Your task to perform on an android device: Open display settings Image 0: 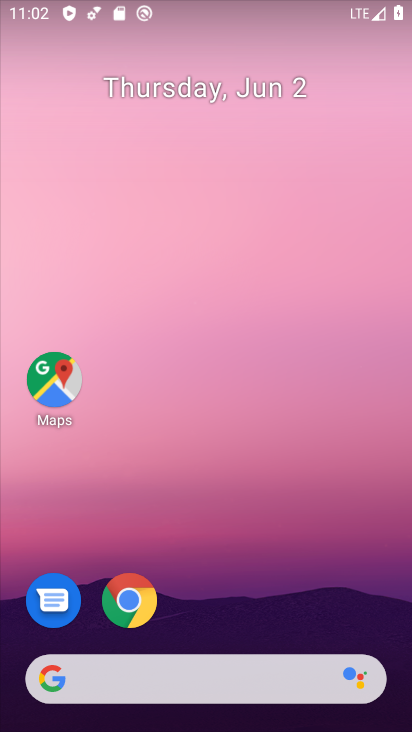
Step 0: drag from (213, 633) to (247, 279)
Your task to perform on an android device: Open display settings Image 1: 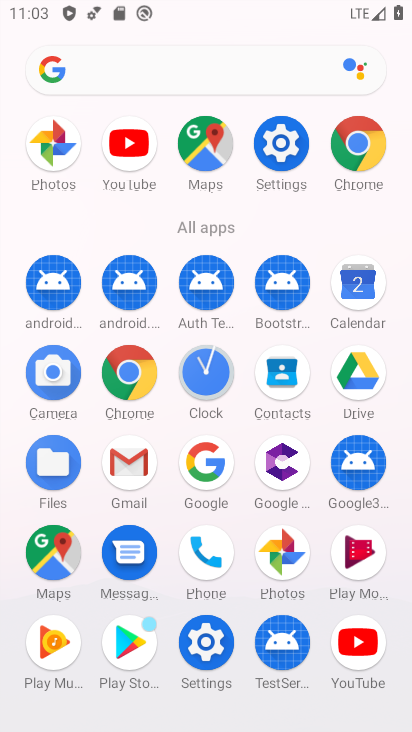
Step 1: click (273, 165)
Your task to perform on an android device: Open display settings Image 2: 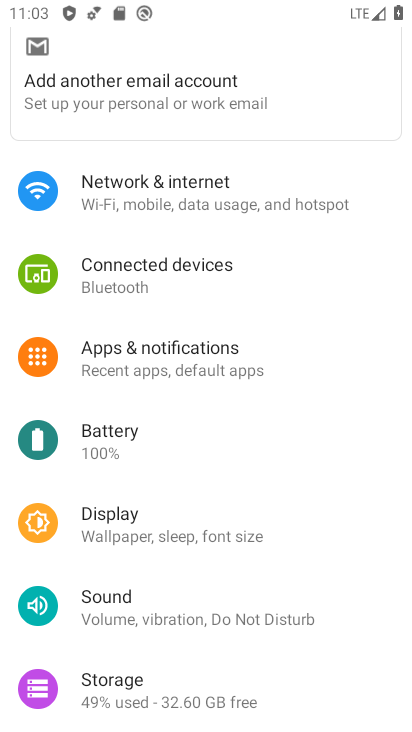
Step 2: click (156, 516)
Your task to perform on an android device: Open display settings Image 3: 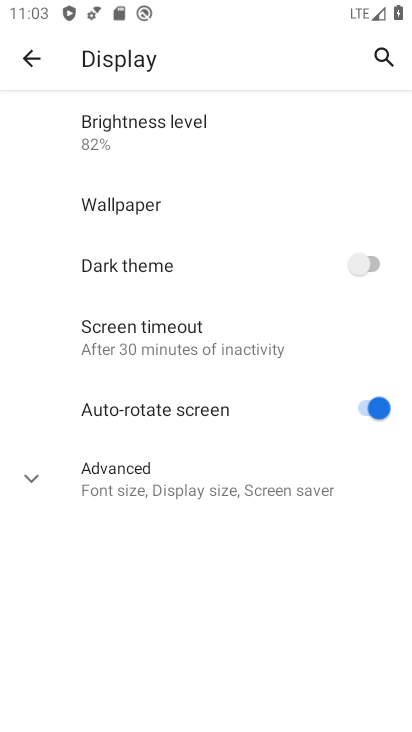
Step 3: task complete